Your task to perform on an android device: turn on location history Image 0: 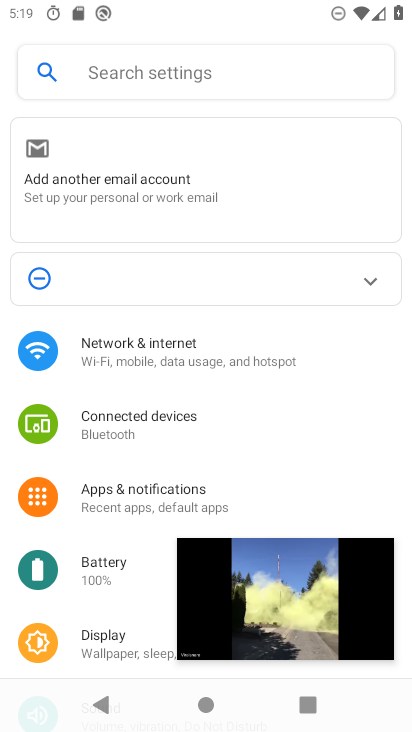
Step 0: click (303, 596)
Your task to perform on an android device: turn on location history Image 1: 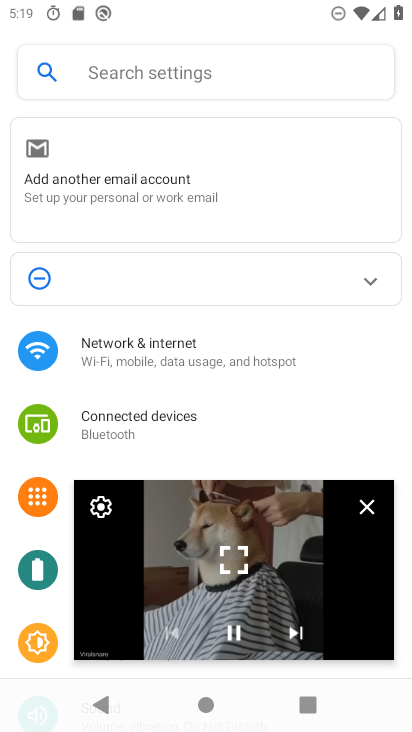
Step 1: click (358, 504)
Your task to perform on an android device: turn on location history Image 2: 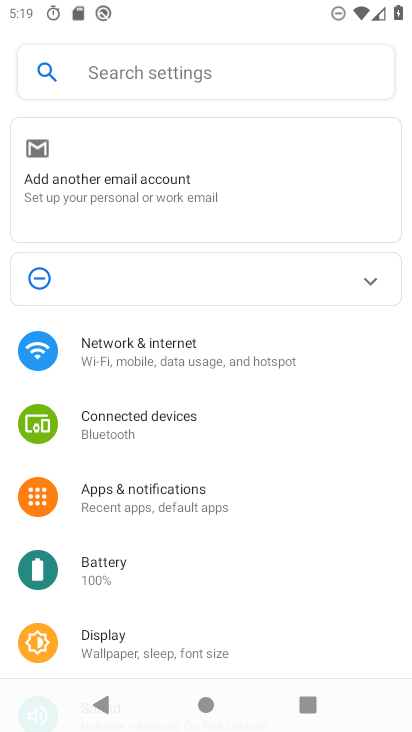
Step 2: drag from (174, 628) to (170, 350)
Your task to perform on an android device: turn on location history Image 3: 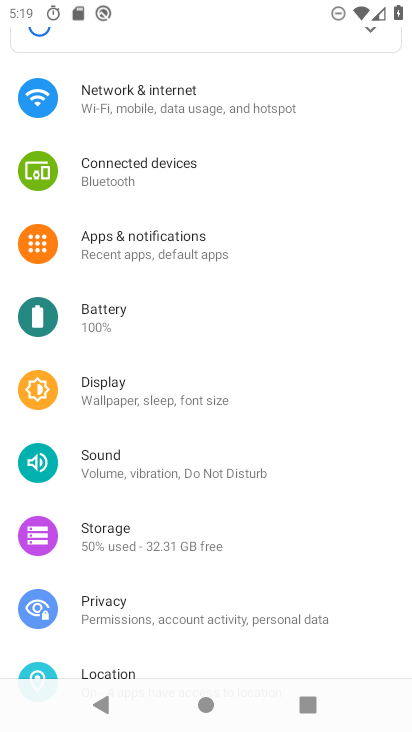
Step 3: drag from (166, 660) to (160, 465)
Your task to perform on an android device: turn on location history Image 4: 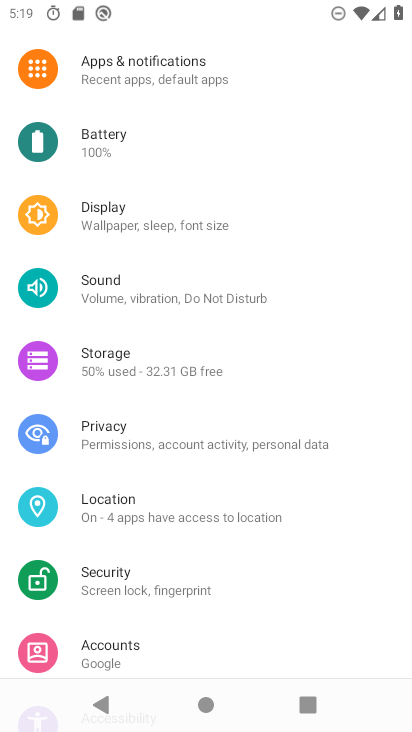
Step 4: click (145, 505)
Your task to perform on an android device: turn on location history Image 5: 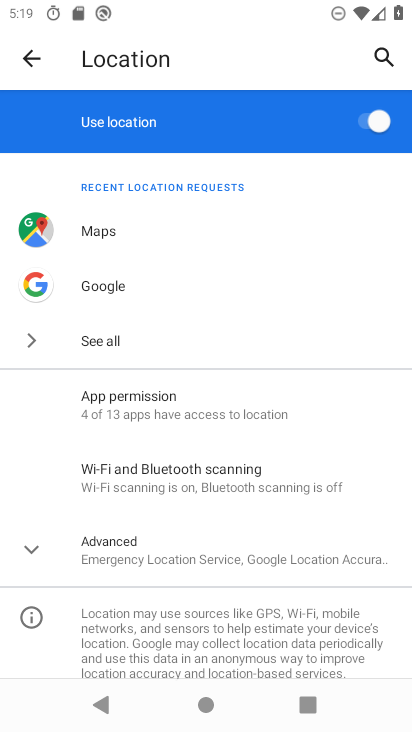
Step 5: click (188, 544)
Your task to perform on an android device: turn on location history Image 6: 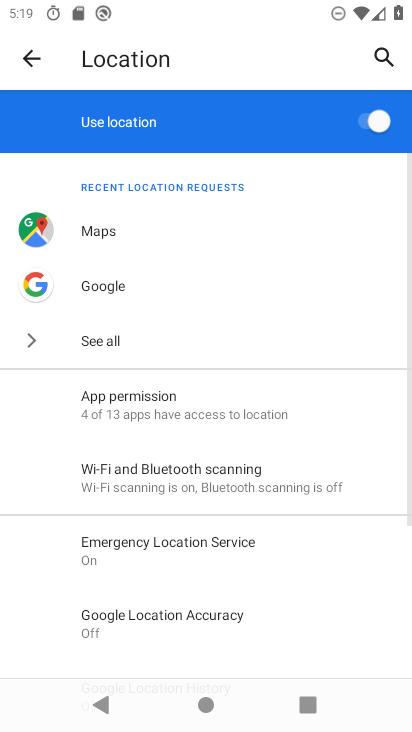
Step 6: drag from (204, 633) to (186, 376)
Your task to perform on an android device: turn on location history Image 7: 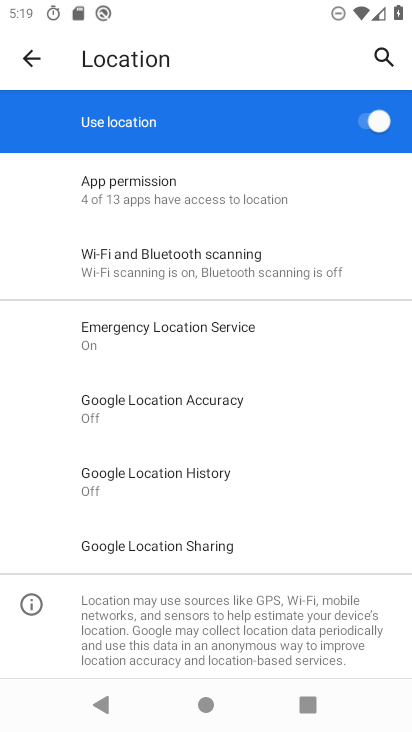
Step 7: click (187, 467)
Your task to perform on an android device: turn on location history Image 8: 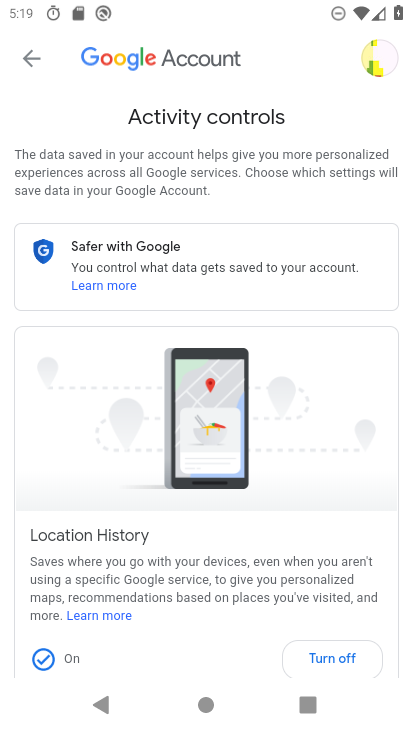
Step 8: click (336, 660)
Your task to perform on an android device: turn on location history Image 9: 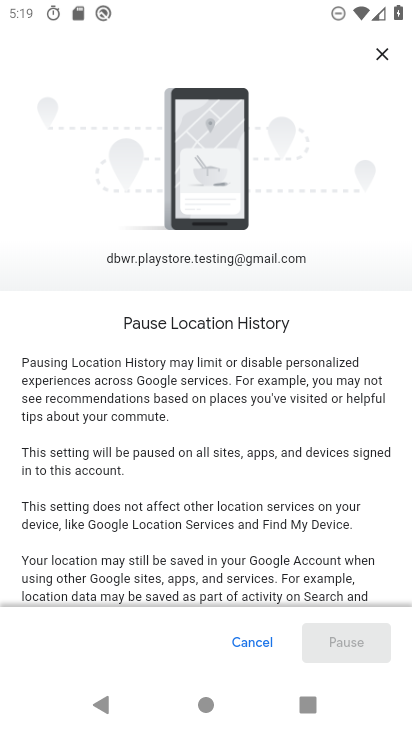
Step 9: click (261, 648)
Your task to perform on an android device: turn on location history Image 10: 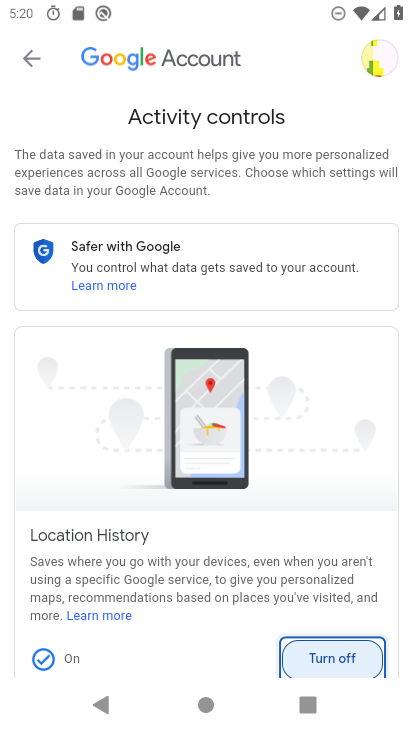
Step 10: task complete